Your task to perform on an android device: open a new tab in the chrome app Image 0: 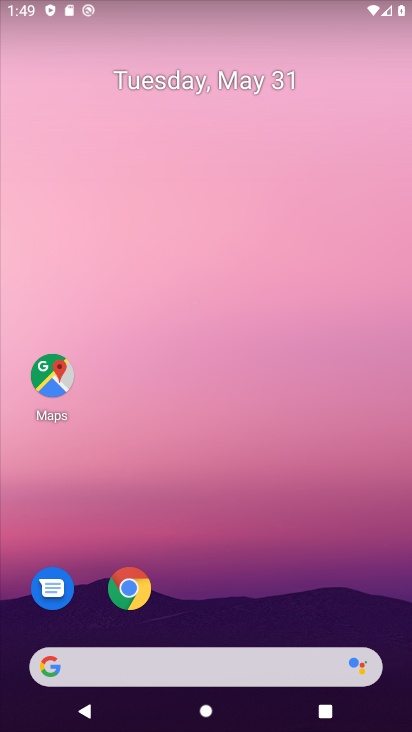
Step 0: click (125, 607)
Your task to perform on an android device: open a new tab in the chrome app Image 1: 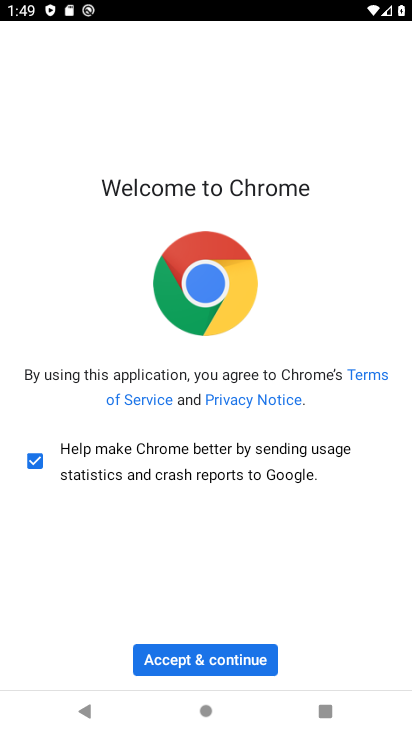
Step 1: click (203, 671)
Your task to perform on an android device: open a new tab in the chrome app Image 2: 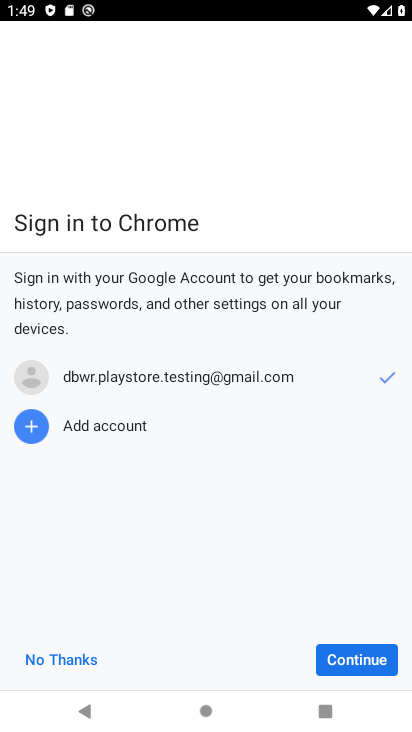
Step 2: click (359, 662)
Your task to perform on an android device: open a new tab in the chrome app Image 3: 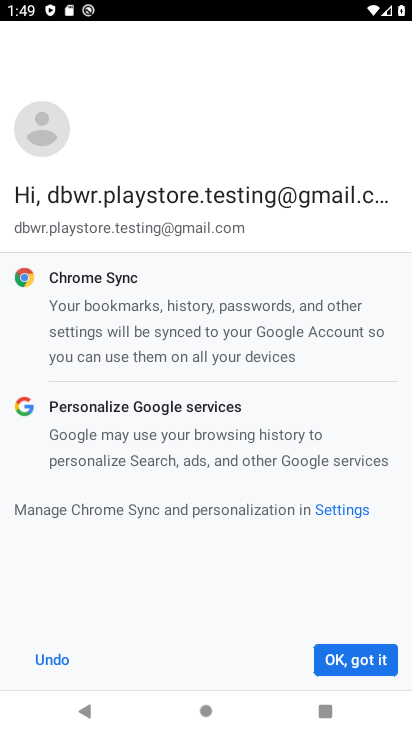
Step 3: click (369, 665)
Your task to perform on an android device: open a new tab in the chrome app Image 4: 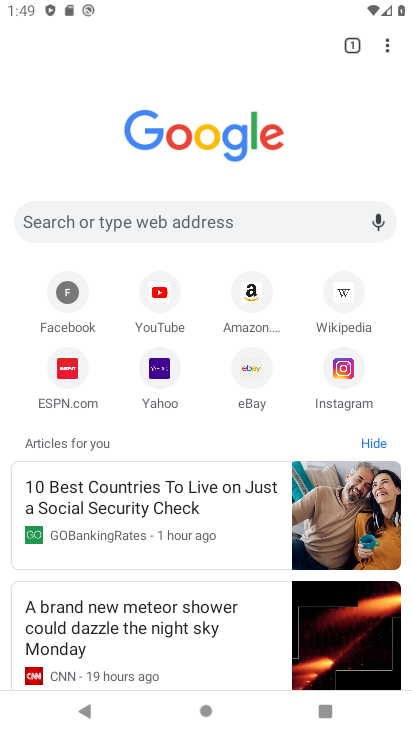
Step 4: click (387, 47)
Your task to perform on an android device: open a new tab in the chrome app Image 5: 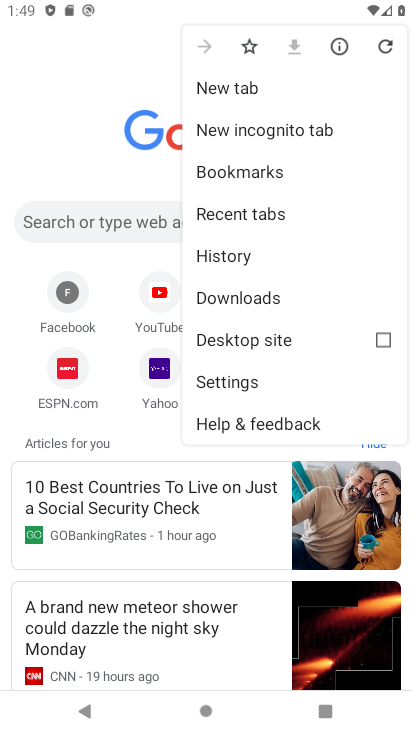
Step 5: click (236, 91)
Your task to perform on an android device: open a new tab in the chrome app Image 6: 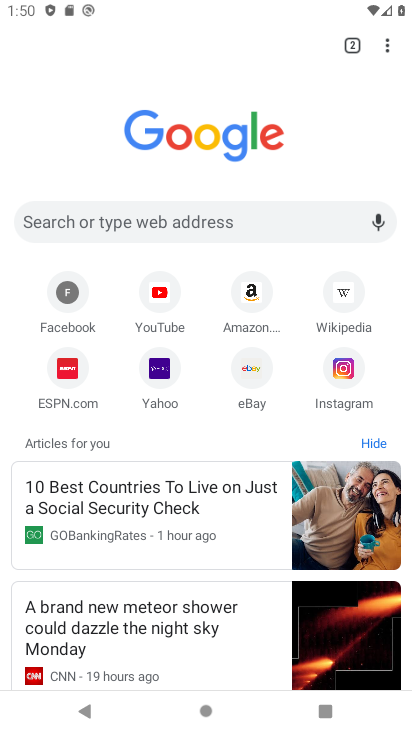
Step 6: task complete